Your task to perform on an android device: turn off sleep mode Image 0: 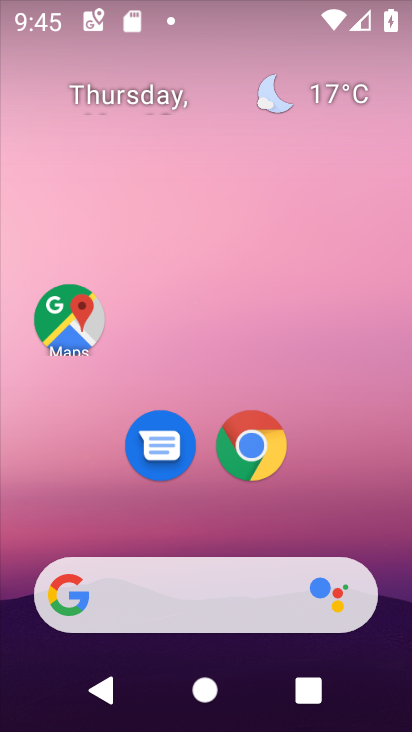
Step 0: drag from (145, 525) to (218, 258)
Your task to perform on an android device: turn off sleep mode Image 1: 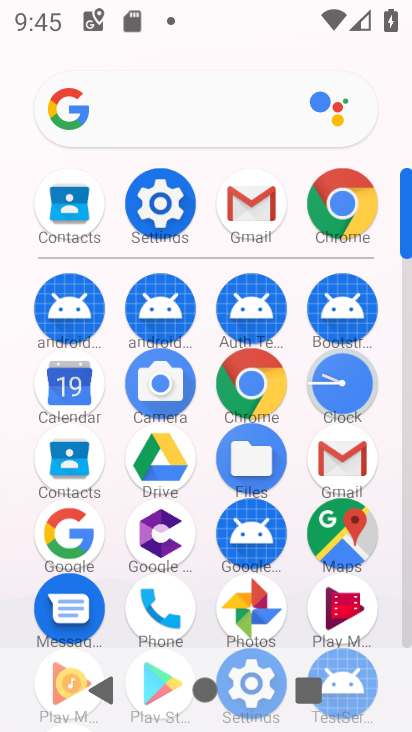
Step 1: click (169, 230)
Your task to perform on an android device: turn off sleep mode Image 2: 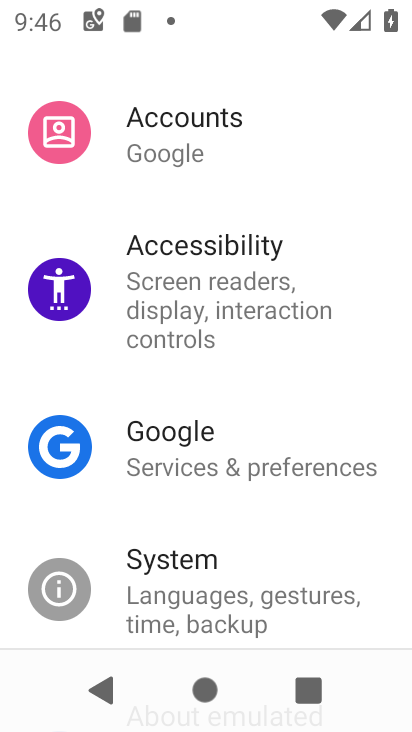
Step 2: task complete